Your task to perform on an android device: Open Google Maps Image 0: 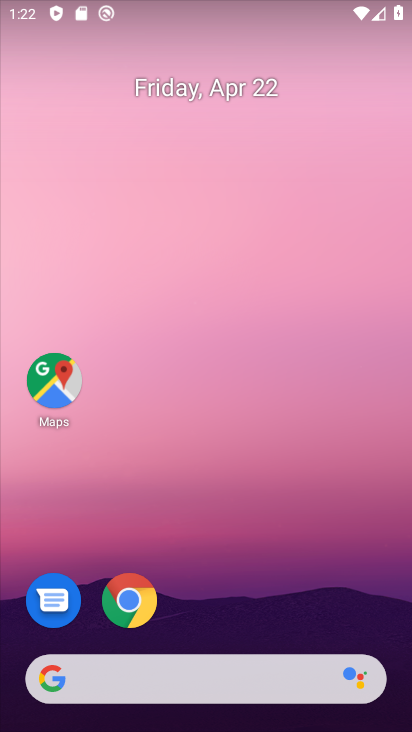
Step 0: drag from (203, 607) to (327, 48)
Your task to perform on an android device: Open Google Maps Image 1: 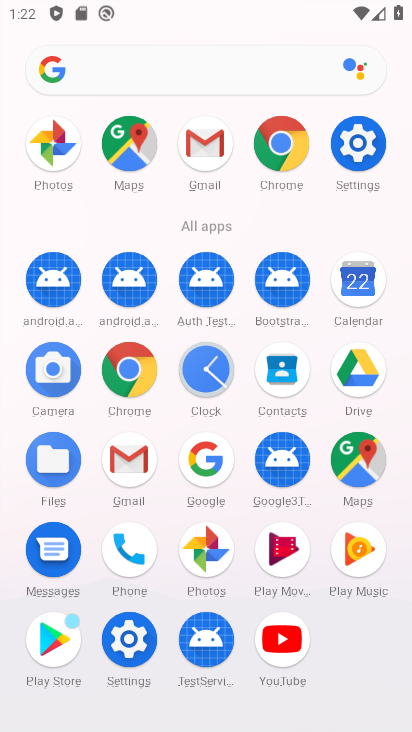
Step 1: click (359, 459)
Your task to perform on an android device: Open Google Maps Image 2: 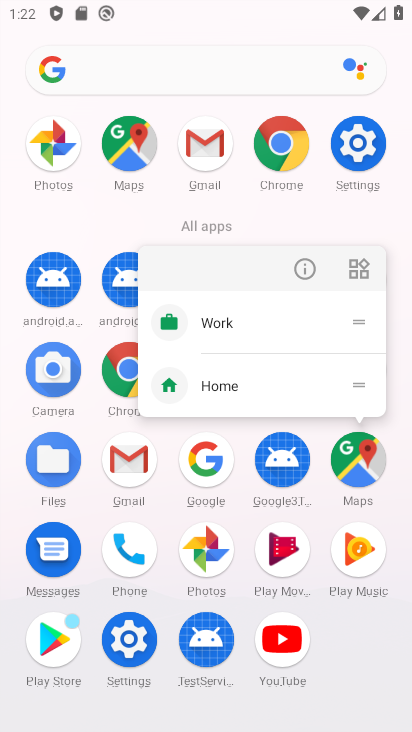
Step 2: click (375, 454)
Your task to perform on an android device: Open Google Maps Image 3: 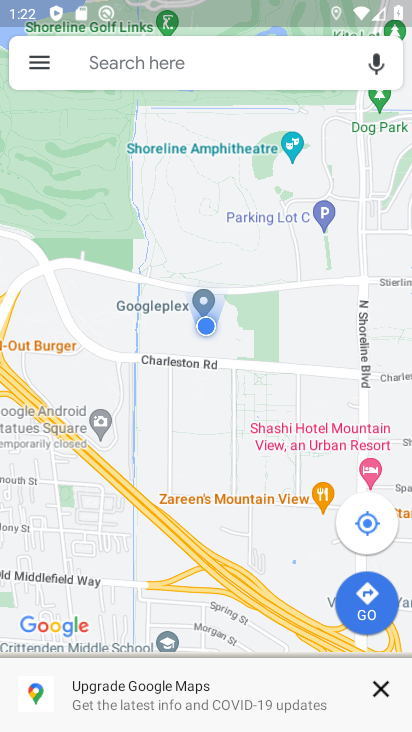
Step 3: task complete